Your task to perform on an android device: Open accessibility settings Image 0: 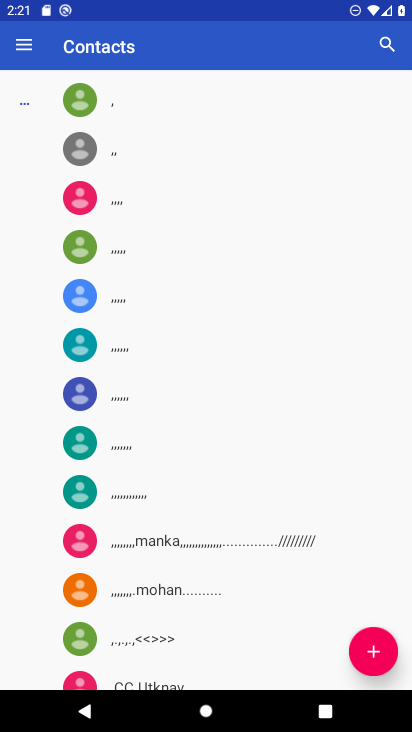
Step 0: press home button
Your task to perform on an android device: Open accessibility settings Image 1: 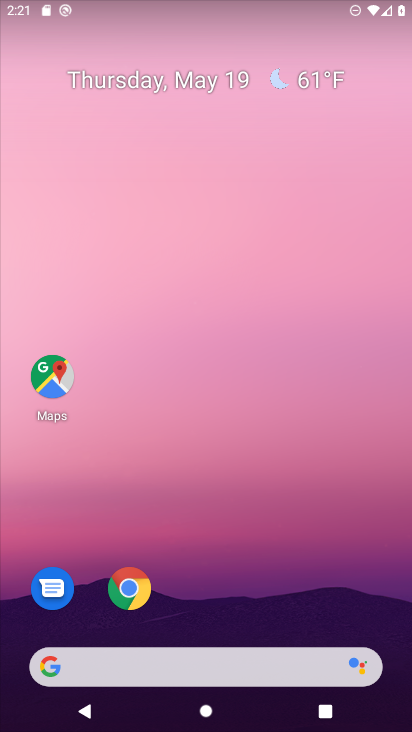
Step 1: drag from (321, 638) to (302, 14)
Your task to perform on an android device: Open accessibility settings Image 2: 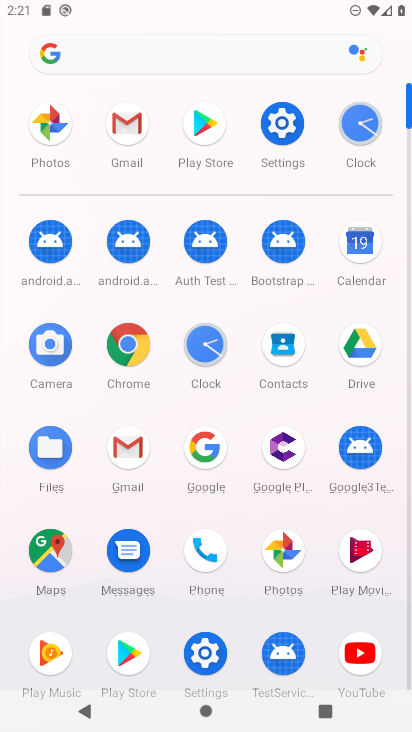
Step 2: click (282, 126)
Your task to perform on an android device: Open accessibility settings Image 3: 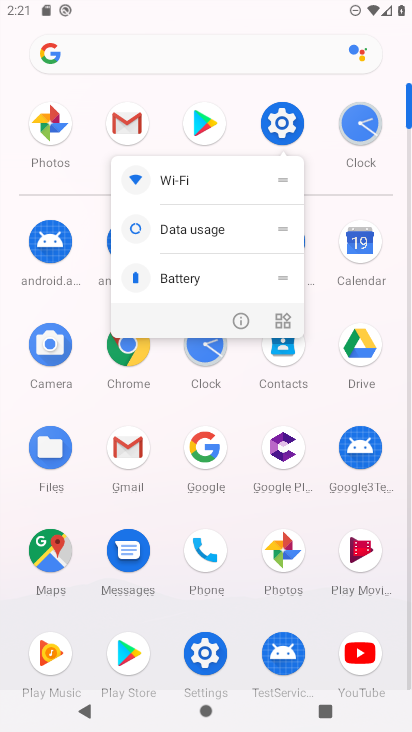
Step 3: click (287, 121)
Your task to perform on an android device: Open accessibility settings Image 4: 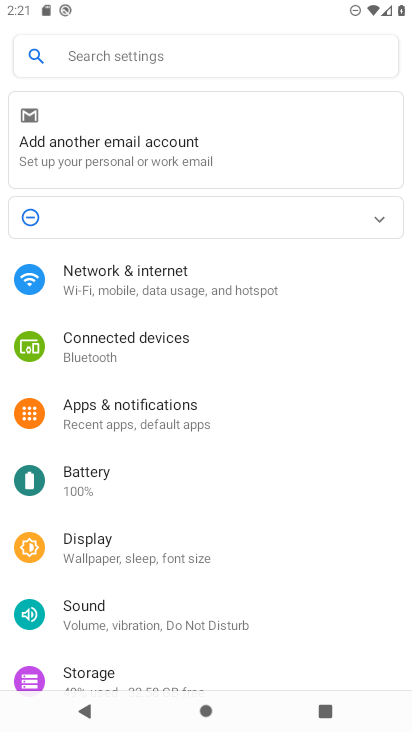
Step 4: drag from (251, 543) to (243, 109)
Your task to perform on an android device: Open accessibility settings Image 5: 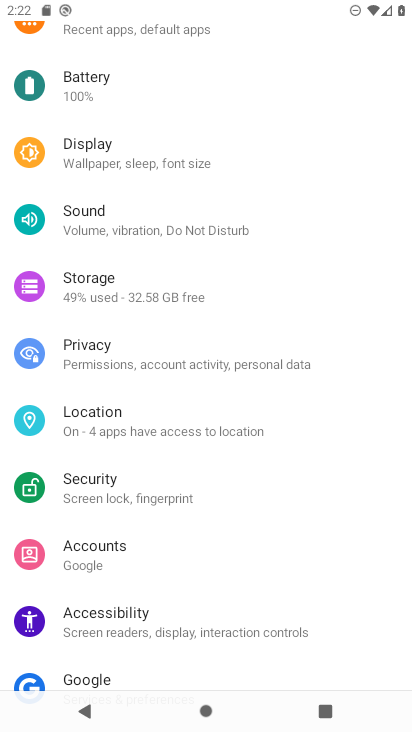
Step 5: click (121, 612)
Your task to perform on an android device: Open accessibility settings Image 6: 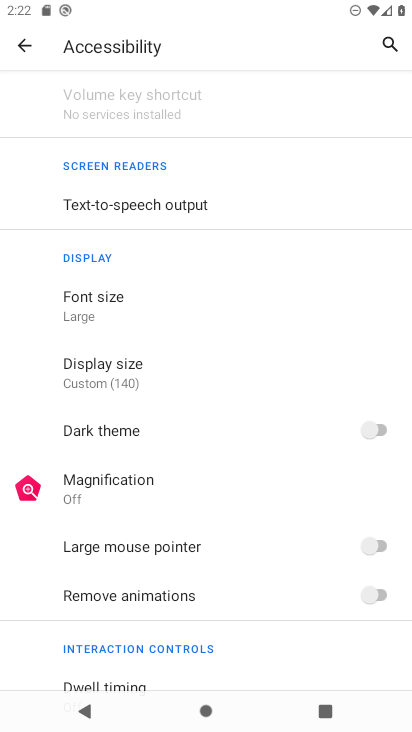
Step 6: task complete